Your task to perform on an android device: Clear the cart on target. Search for energizer triple a on target, select the first entry, add it to the cart, then select checkout. Image 0: 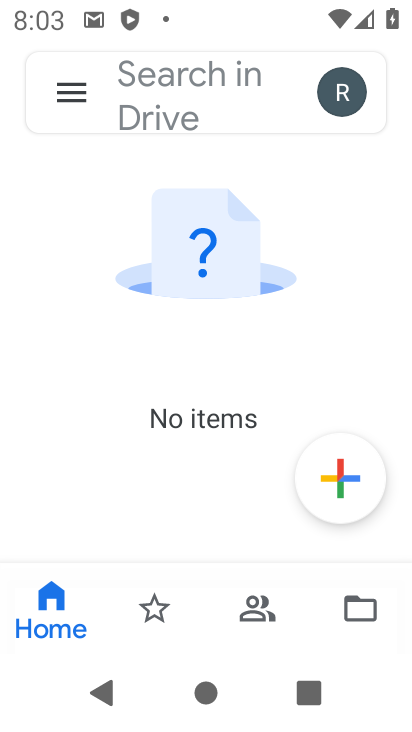
Step 0: press home button
Your task to perform on an android device: Clear the cart on target. Search for energizer triple a on target, select the first entry, add it to the cart, then select checkout. Image 1: 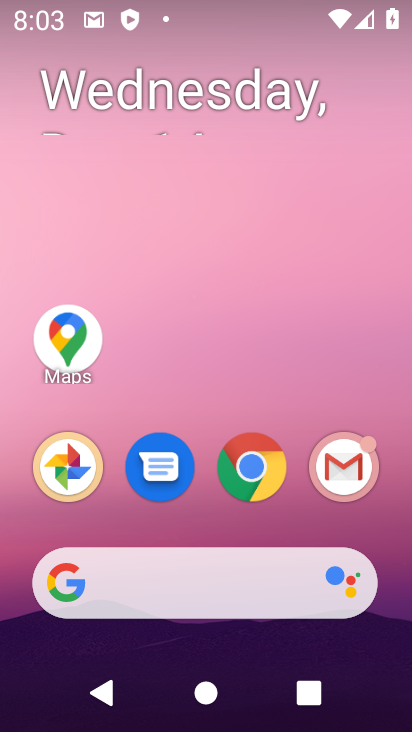
Step 1: click (229, 471)
Your task to perform on an android device: Clear the cart on target. Search for energizer triple a on target, select the first entry, add it to the cart, then select checkout. Image 2: 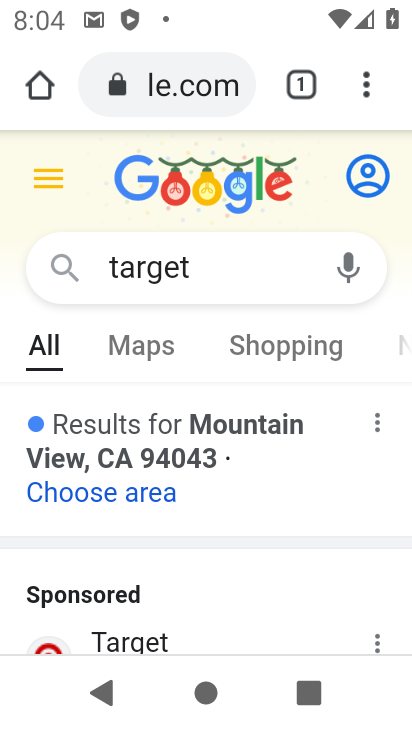
Step 2: click (129, 619)
Your task to perform on an android device: Clear the cart on target. Search for energizer triple a on target, select the first entry, add it to the cart, then select checkout. Image 3: 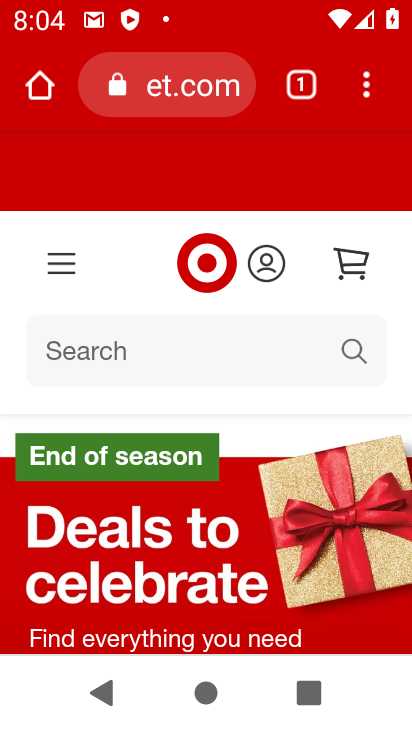
Step 3: click (120, 366)
Your task to perform on an android device: Clear the cart on target. Search for energizer triple a on target, select the first entry, add it to the cart, then select checkout. Image 4: 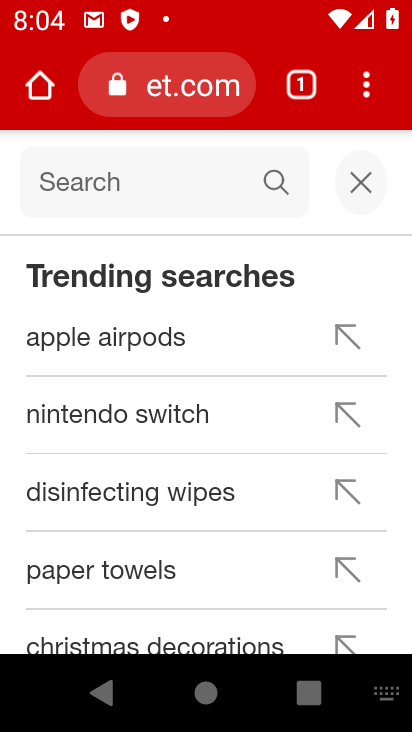
Step 4: type "energizer triple a"
Your task to perform on an android device: Clear the cart on target. Search for energizer triple a on target, select the first entry, add it to the cart, then select checkout. Image 5: 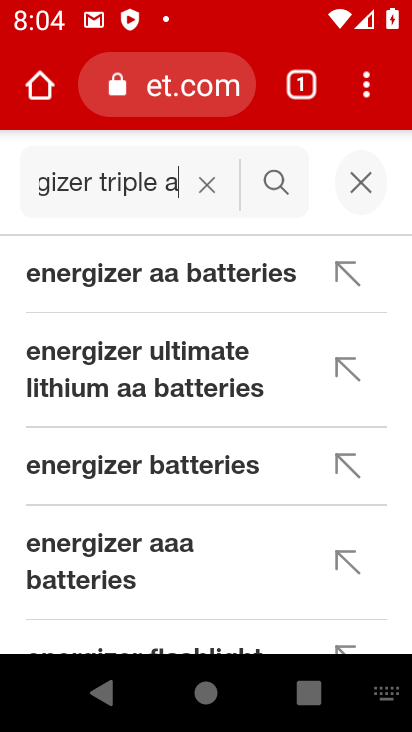
Step 5: click (206, 285)
Your task to perform on an android device: Clear the cart on target. Search for energizer triple a on target, select the first entry, add it to the cart, then select checkout. Image 6: 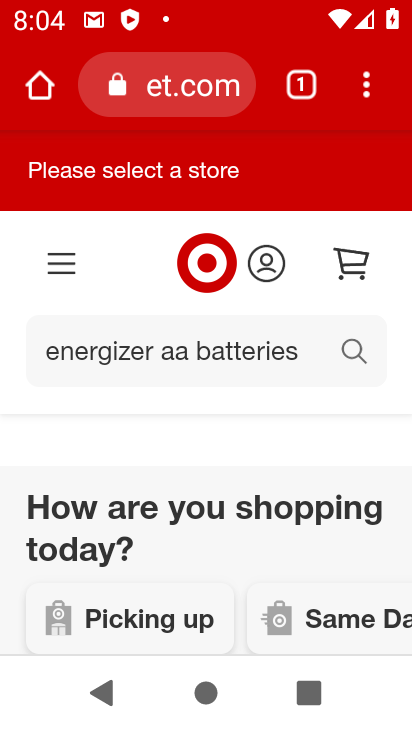
Step 6: task complete